Your task to perform on an android device: find photos in the google photos app Image 0: 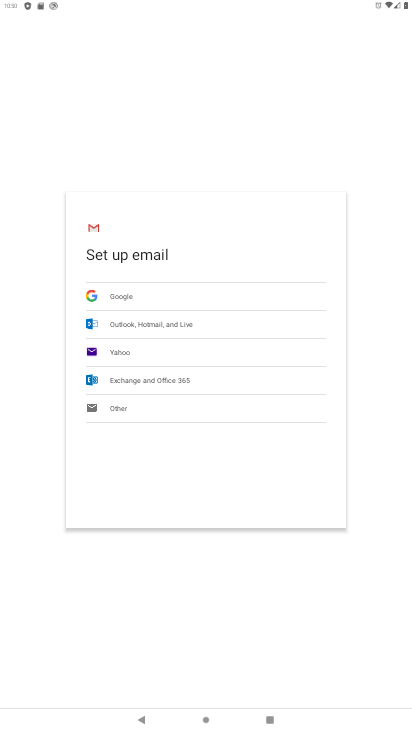
Step 0: press home button
Your task to perform on an android device: find photos in the google photos app Image 1: 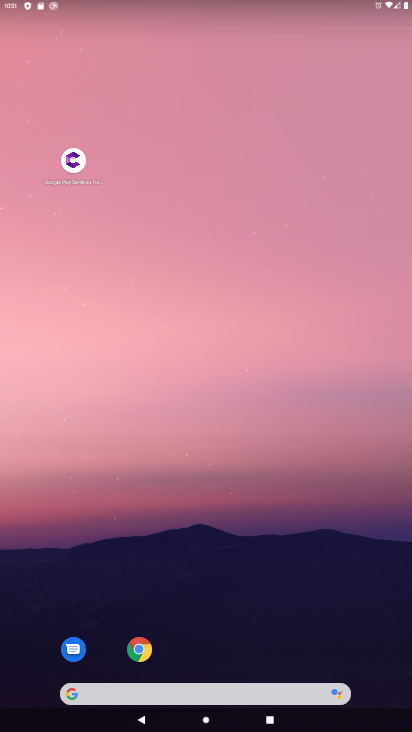
Step 1: drag from (388, 698) to (379, 140)
Your task to perform on an android device: find photos in the google photos app Image 2: 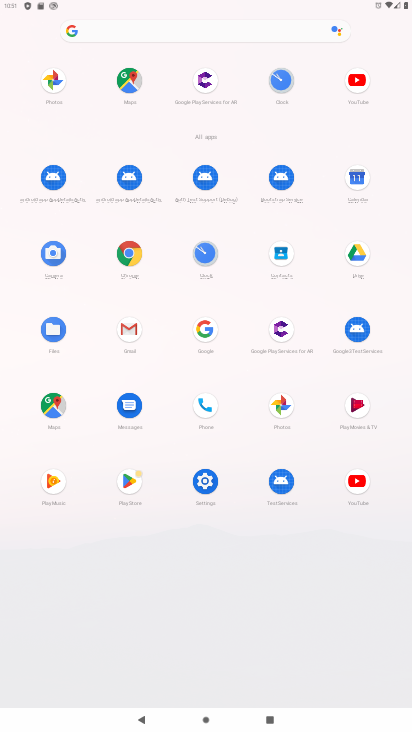
Step 2: click (278, 406)
Your task to perform on an android device: find photos in the google photos app Image 3: 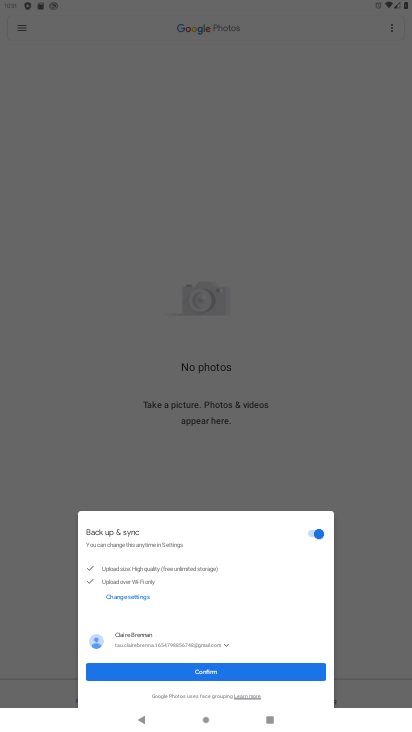
Step 3: task complete